Your task to perform on an android device: Open maps Image 0: 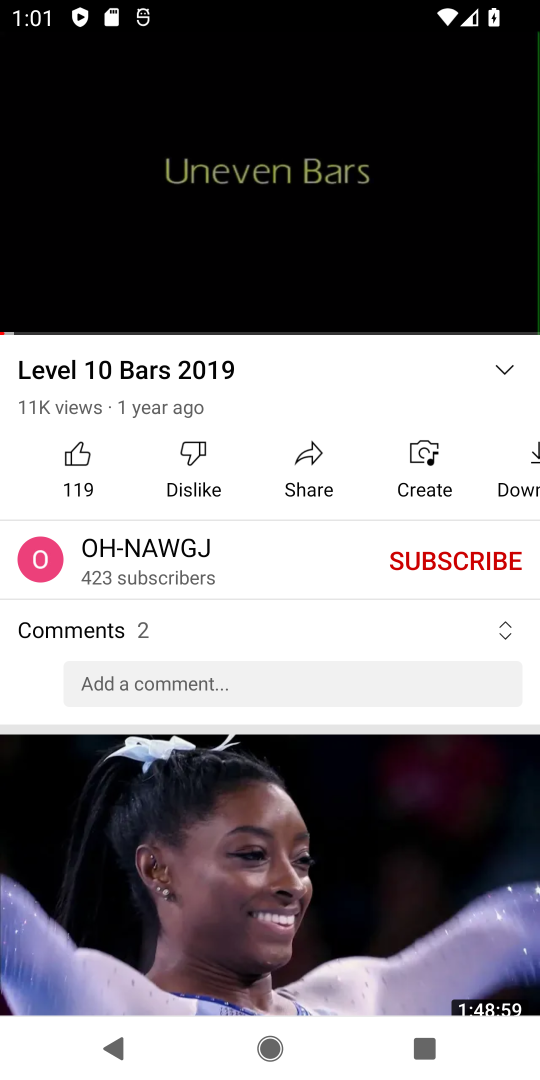
Step 0: press home button
Your task to perform on an android device: Open maps Image 1: 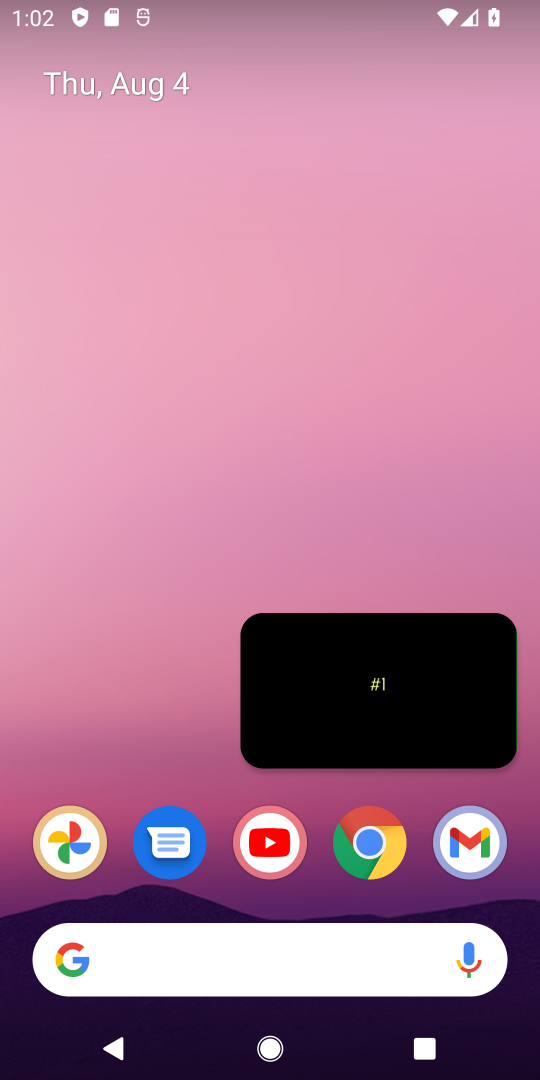
Step 1: click (231, 5)
Your task to perform on an android device: Open maps Image 2: 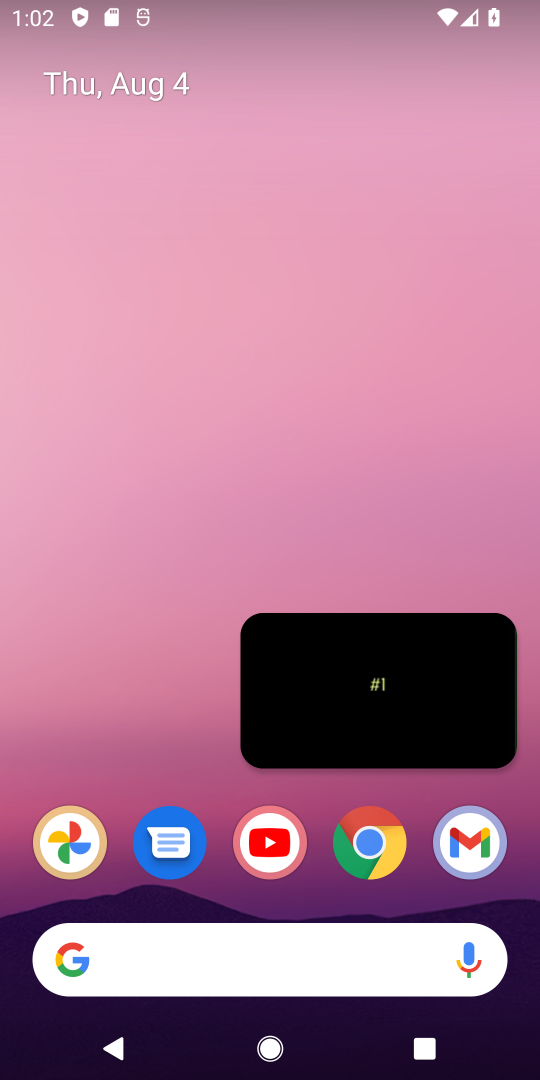
Step 2: drag from (118, 710) to (177, 20)
Your task to perform on an android device: Open maps Image 3: 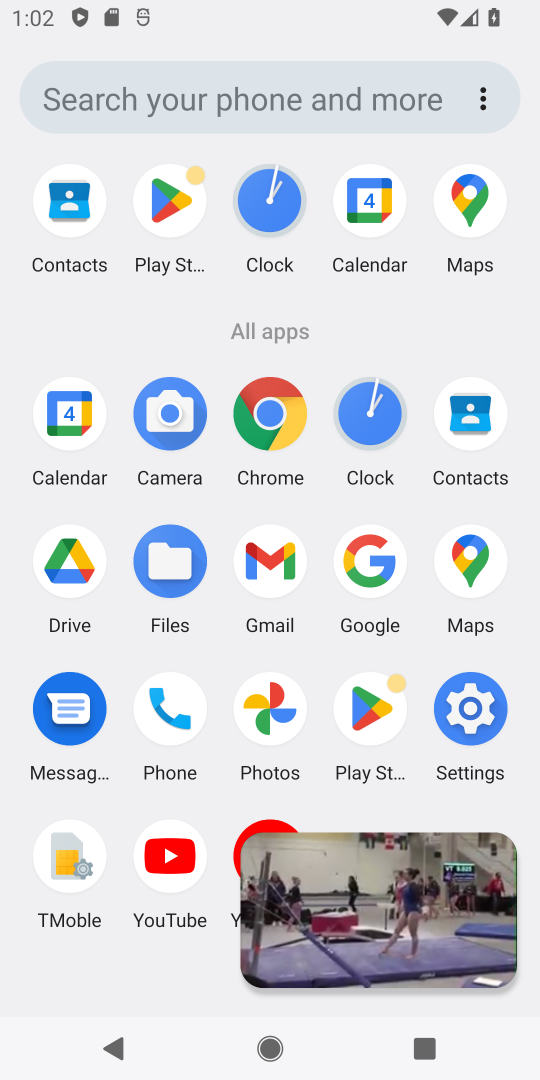
Step 3: click (462, 200)
Your task to perform on an android device: Open maps Image 4: 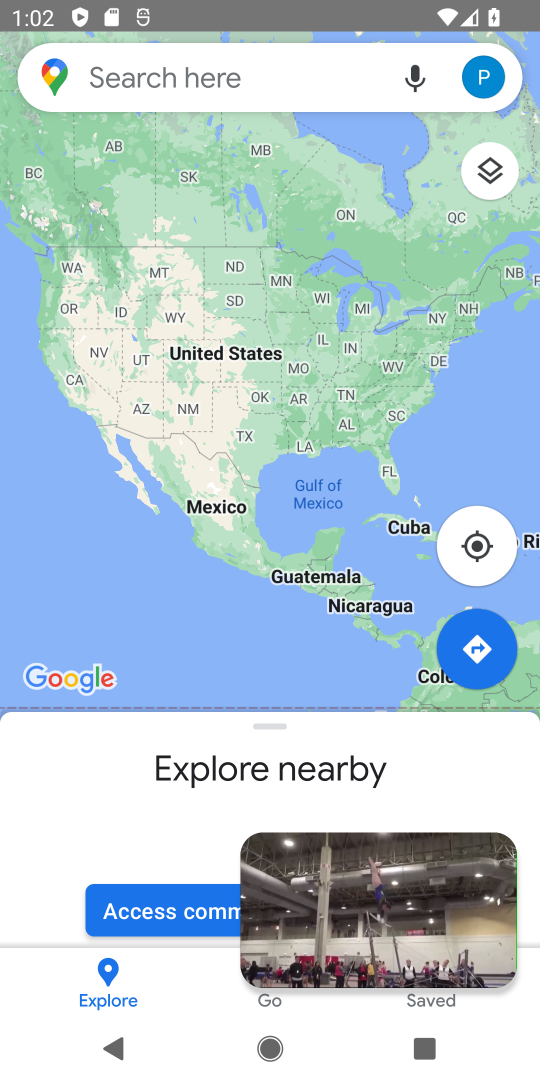
Step 4: task complete